Your task to perform on an android device: Look up the best rated desk lamps on IKEA Image 0: 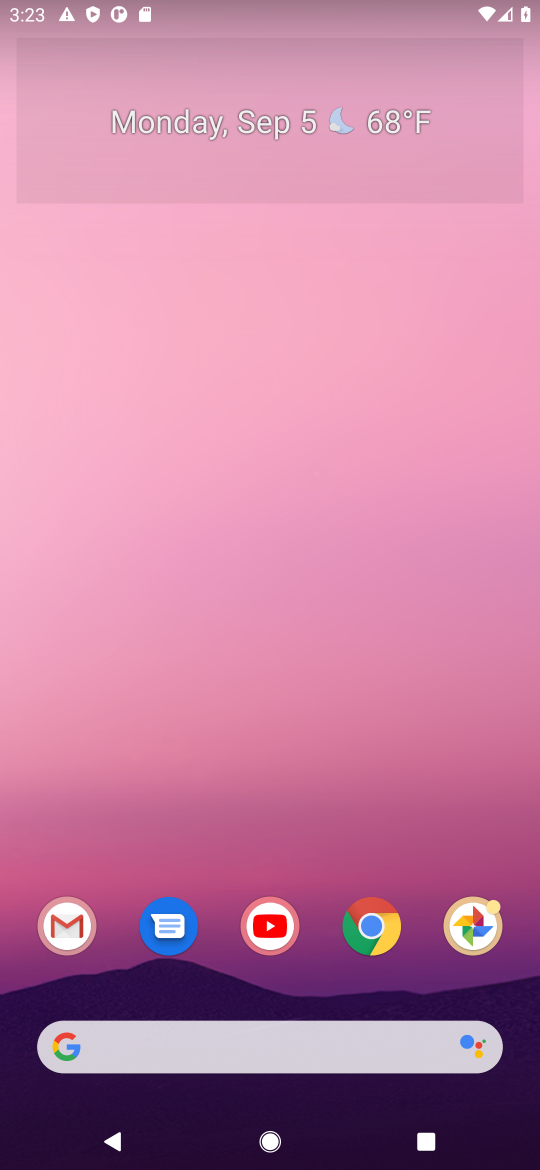
Step 0: task complete